Your task to perform on an android device: Open calendar and show me the third week of next month Image 0: 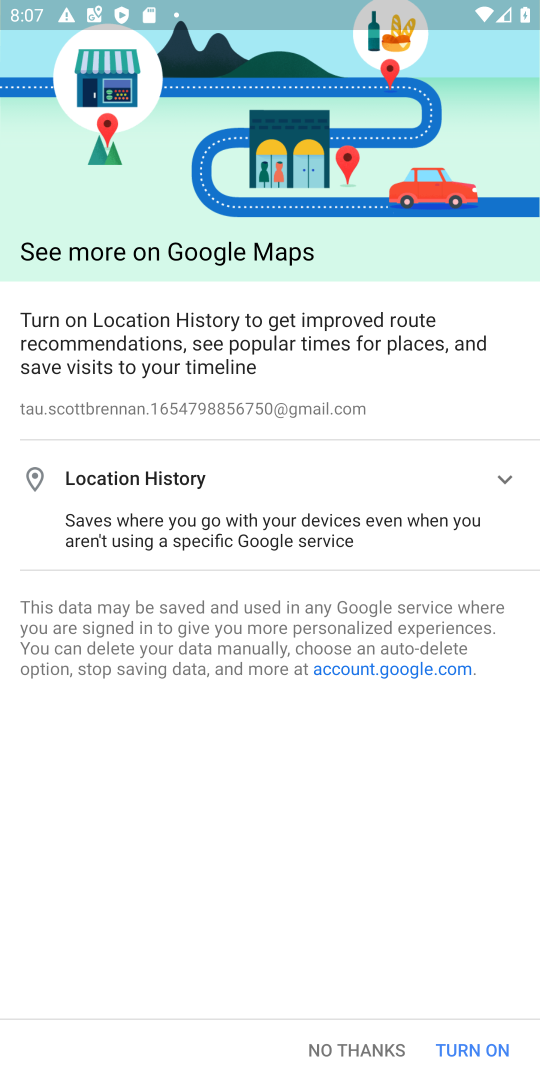
Step 0: press home button
Your task to perform on an android device: Open calendar and show me the third week of next month Image 1: 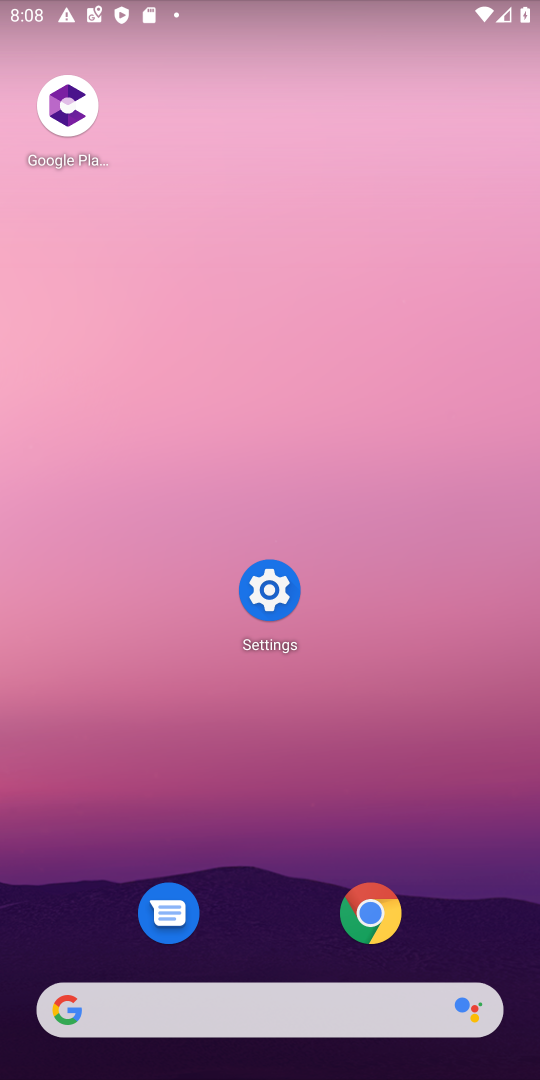
Step 1: drag from (234, 1005) to (538, 134)
Your task to perform on an android device: Open calendar and show me the third week of next month Image 2: 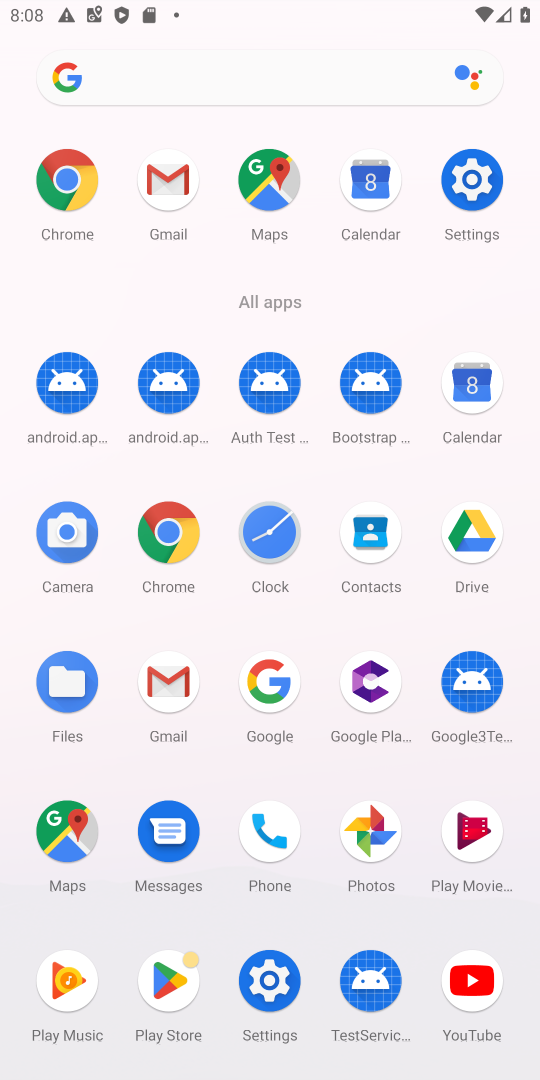
Step 2: click (471, 389)
Your task to perform on an android device: Open calendar and show me the third week of next month Image 3: 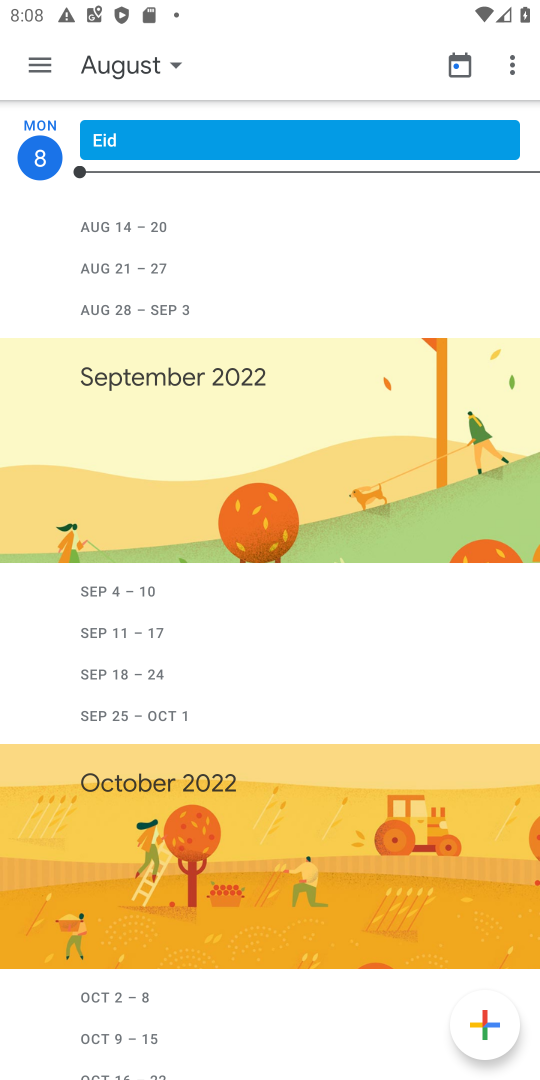
Step 3: click (170, 62)
Your task to perform on an android device: Open calendar and show me the third week of next month Image 4: 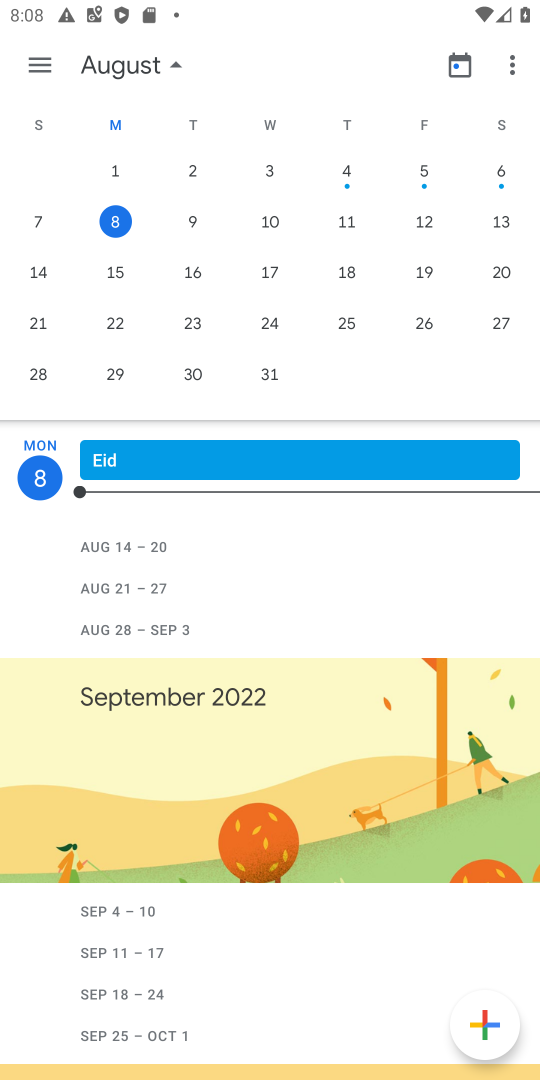
Step 4: drag from (501, 252) to (13, 324)
Your task to perform on an android device: Open calendar and show me the third week of next month Image 5: 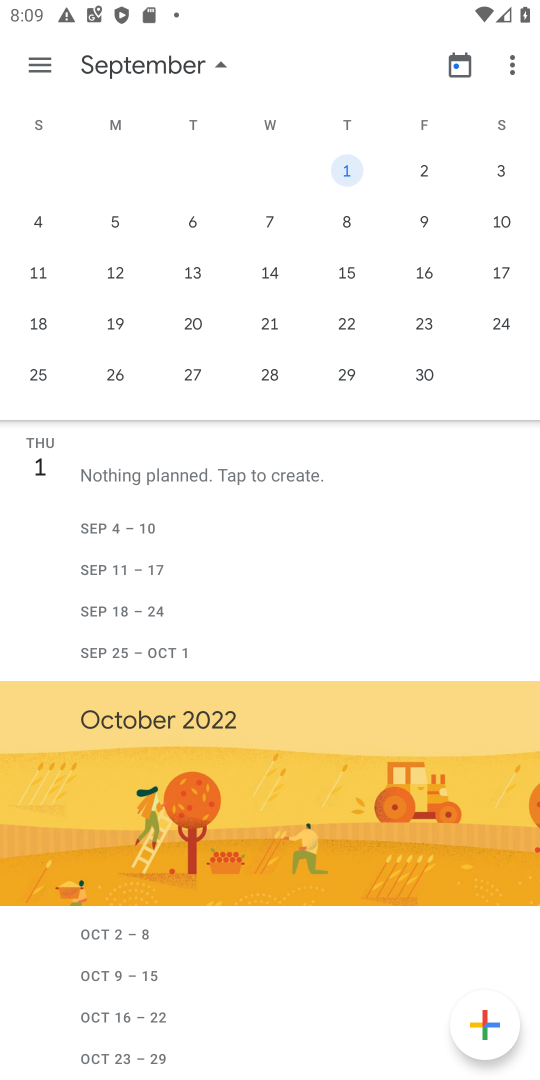
Step 5: click (119, 322)
Your task to perform on an android device: Open calendar and show me the third week of next month Image 6: 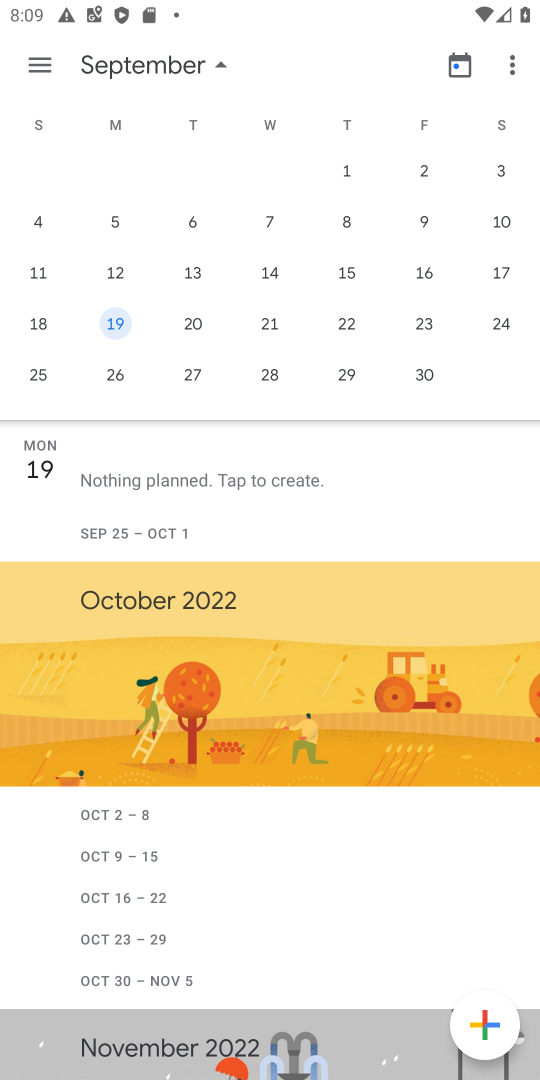
Step 6: click (46, 76)
Your task to perform on an android device: Open calendar and show me the third week of next month Image 7: 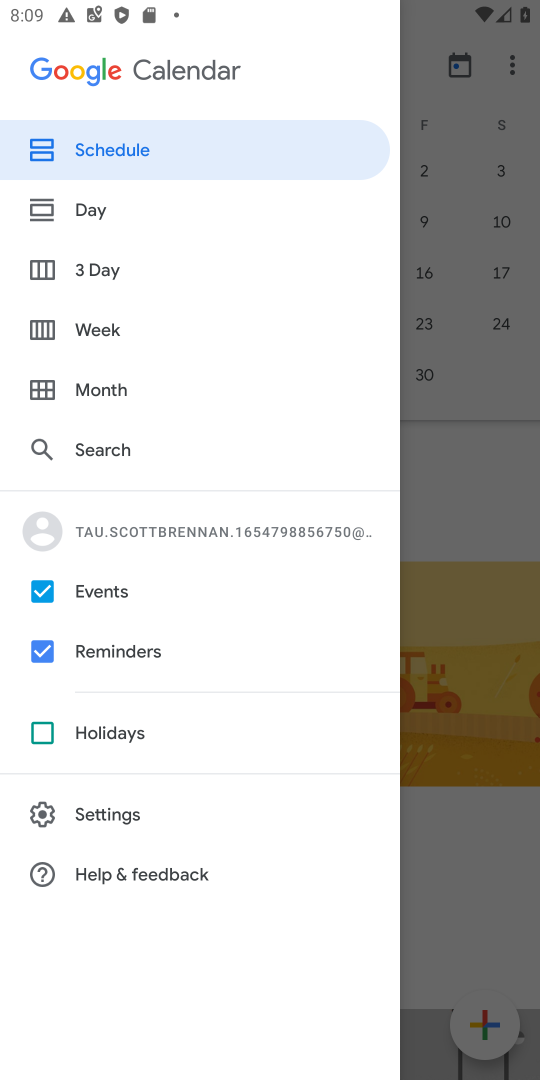
Step 7: click (101, 325)
Your task to perform on an android device: Open calendar and show me the third week of next month Image 8: 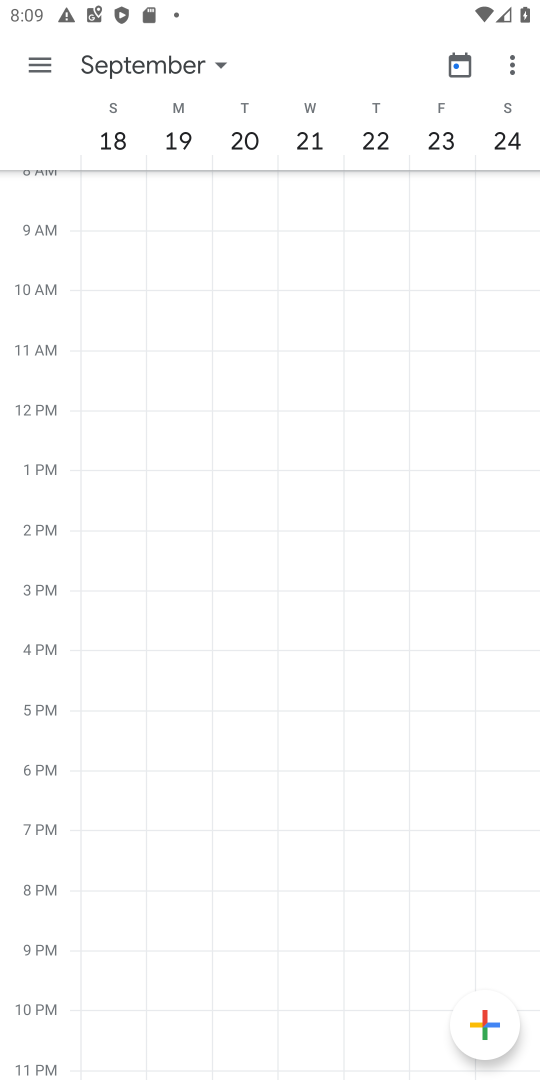
Step 8: task complete